Your task to perform on an android device: Open Android settings Image 0: 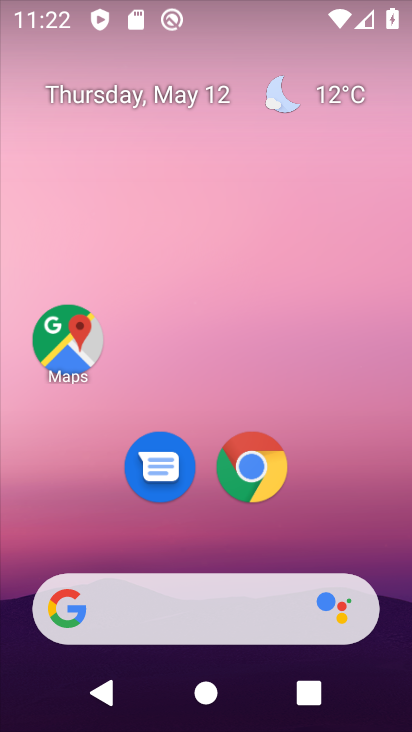
Step 0: drag from (254, 280) to (166, 9)
Your task to perform on an android device: Open Android settings Image 1: 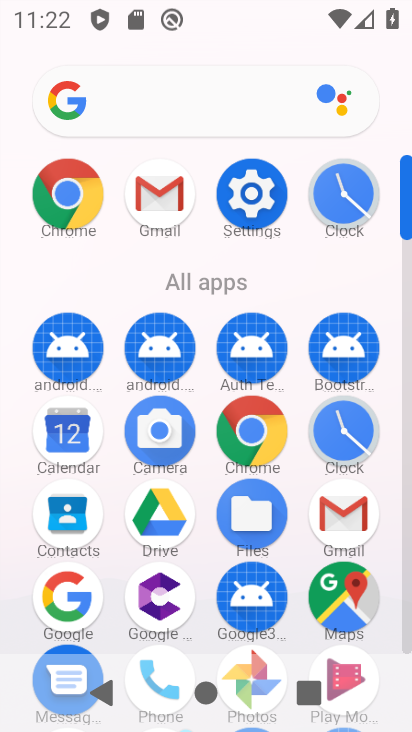
Step 1: drag from (7, 572) to (19, 326)
Your task to perform on an android device: Open Android settings Image 2: 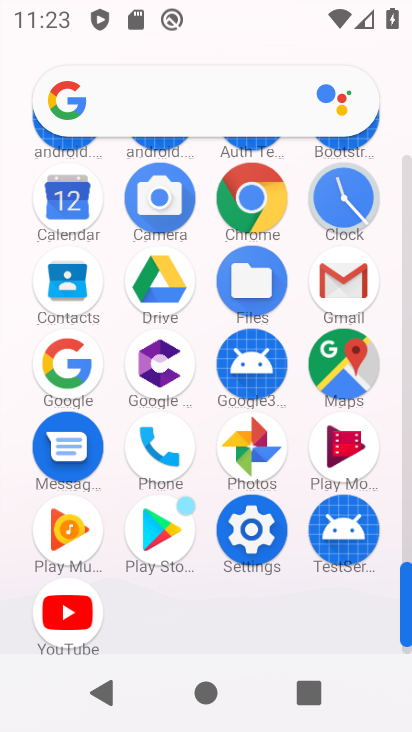
Step 2: click (245, 527)
Your task to perform on an android device: Open Android settings Image 3: 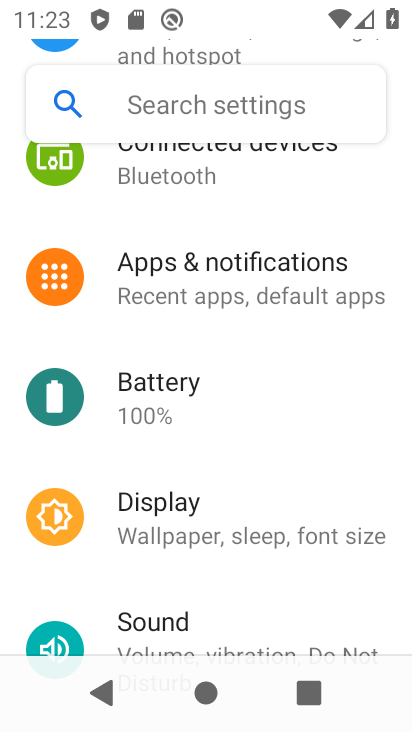
Step 3: task complete